Your task to perform on an android device: Play the last video I watched on Youtube Image 0: 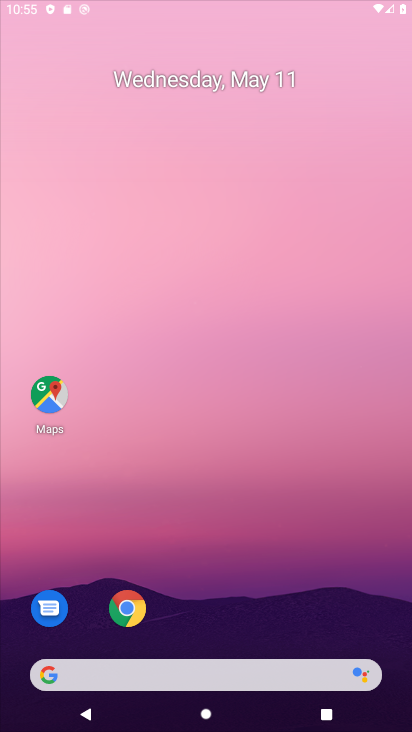
Step 0: drag from (338, 608) to (74, 136)
Your task to perform on an android device: Play the last video I watched on Youtube Image 1: 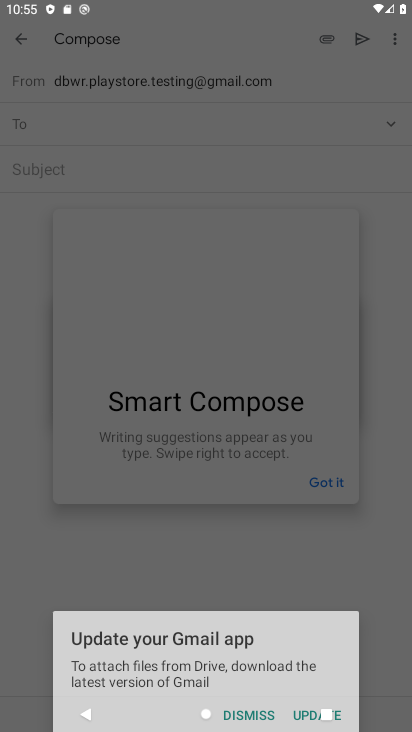
Step 1: click (333, 476)
Your task to perform on an android device: Play the last video I watched on Youtube Image 2: 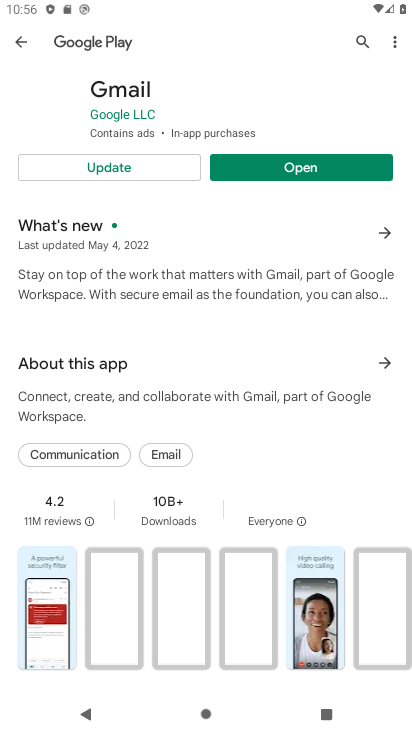
Step 2: press back button
Your task to perform on an android device: Play the last video I watched on Youtube Image 3: 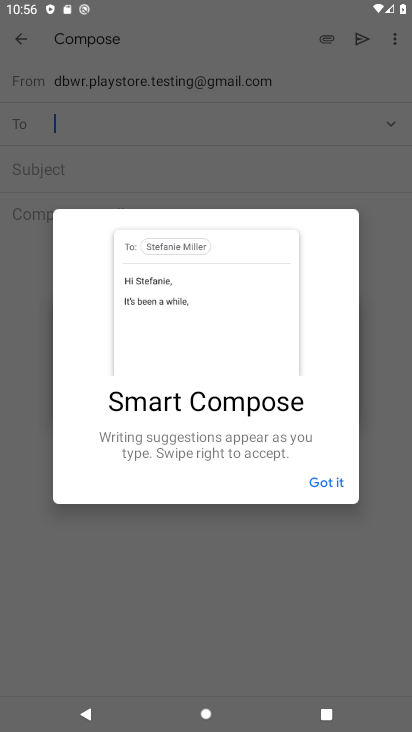
Step 3: click (318, 487)
Your task to perform on an android device: Play the last video I watched on Youtube Image 4: 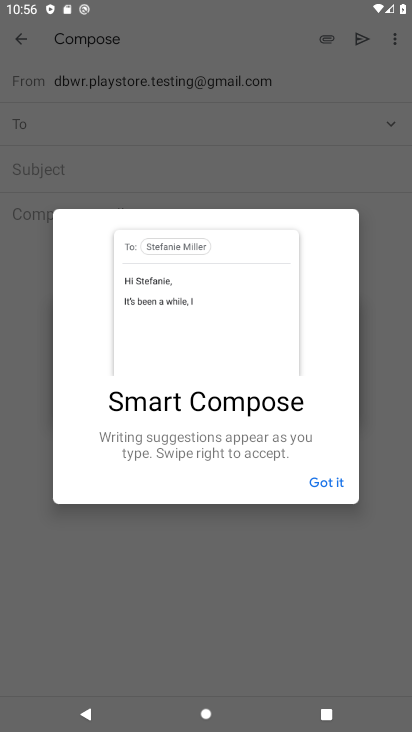
Step 4: click (319, 486)
Your task to perform on an android device: Play the last video I watched on Youtube Image 5: 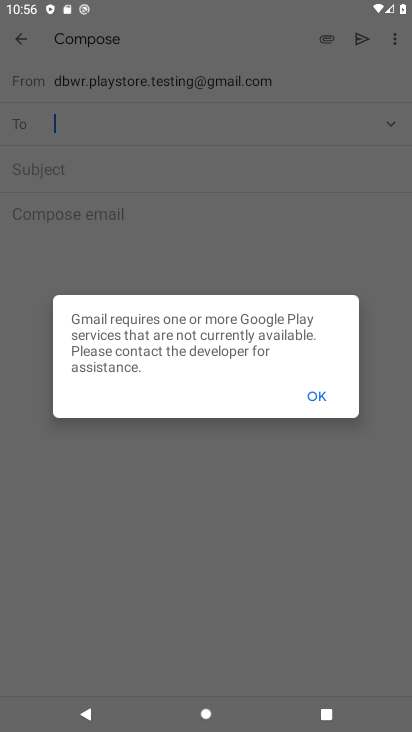
Step 5: click (319, 486)
Your task to perform on an android device: Play the last video I watched on Youtube Image 6: 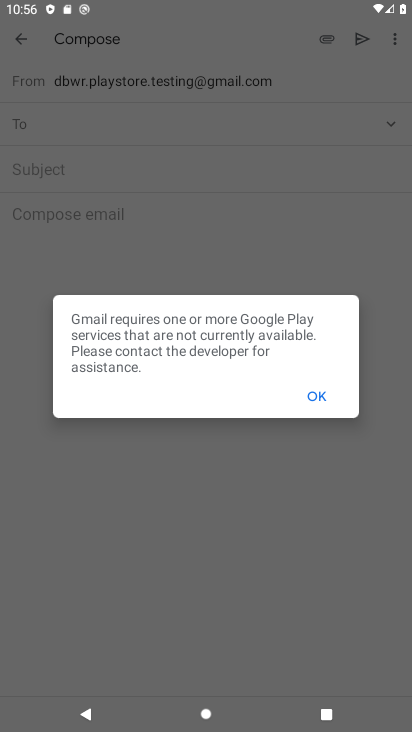
Step 6: click (320, 482)
Your task to perform on an android device: Play the last video I watched on Youtube Image 7: 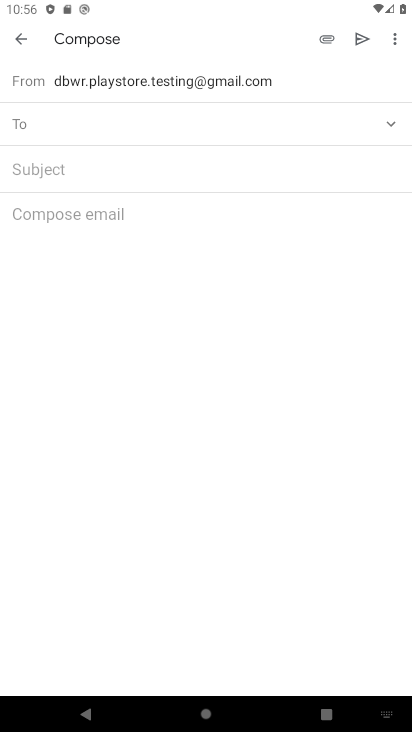
Step 7: press back button
Your task to perform on an android device: Play the last video I watched on Youtube Image 8: 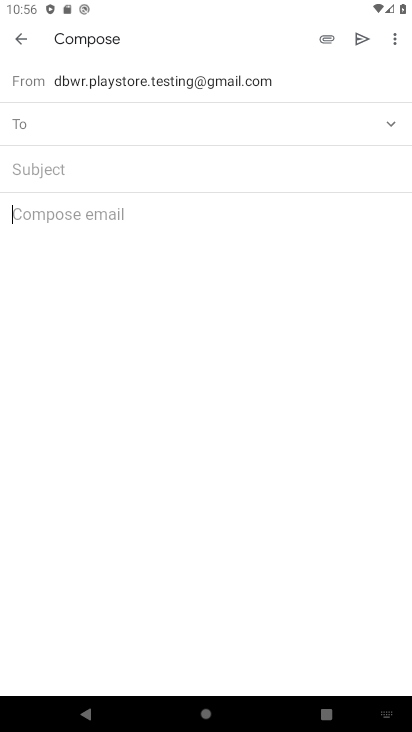
Step 8: press home button
Your task to perform on an android device: Play the last video I watched on Youtube Image 9: 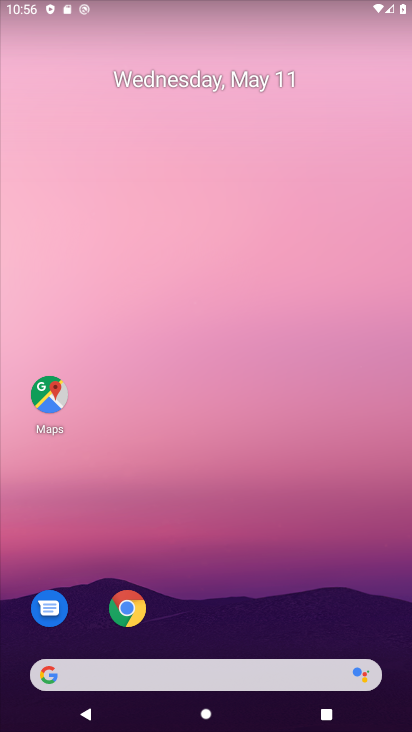
Step 9: drag from (329, 559) to (91, 132)
Your task to perform on an android device: Play the last video I watched on Youtube Image 10: 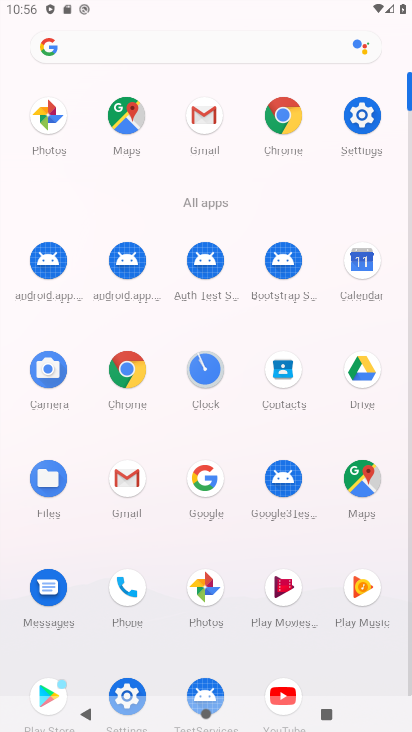
Step 10: click (287, 676)
Your task to perform on an android device: Play the last video I watched on Youtube Image 11: 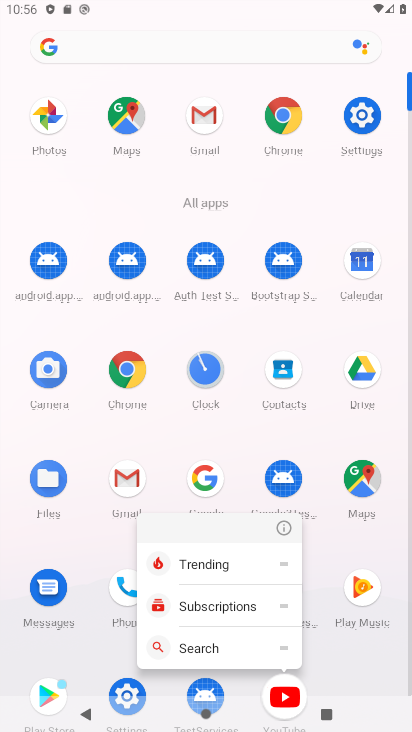
Step 11: click (287, 677)
Your task to perform on an android device: Play the last video I watched on Youtube Image 12: 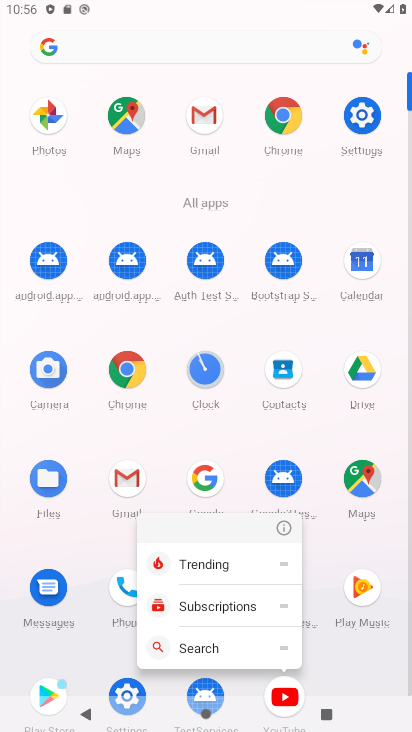
Step 12: click (287, 677)
Your task to perform on an android device: Play the last video I watched on Youtube Image 13: 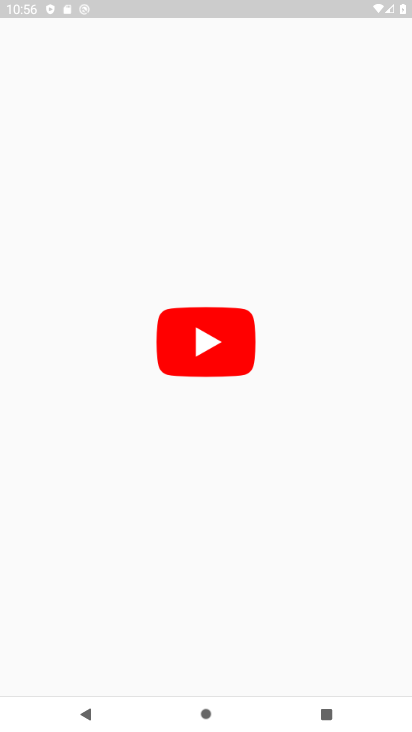
Step 13: click (198, 291)
Your task to perform on an android device: Play the last video I watched on Youtube Image 14: 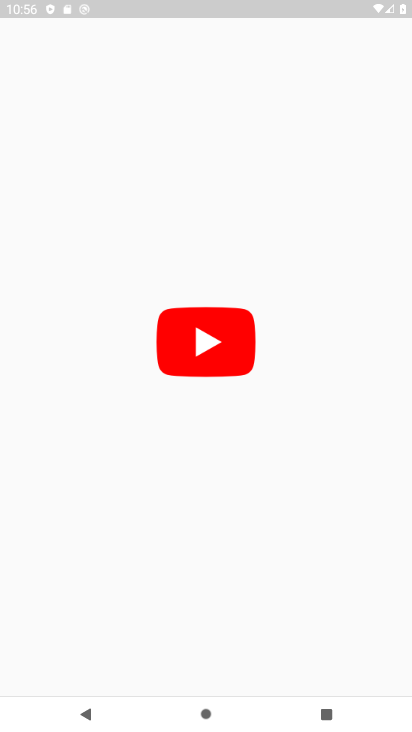
Step 14: click (214, 349)
Your task to perform on an android device: Play the last video I watched on Youtube Image 15: 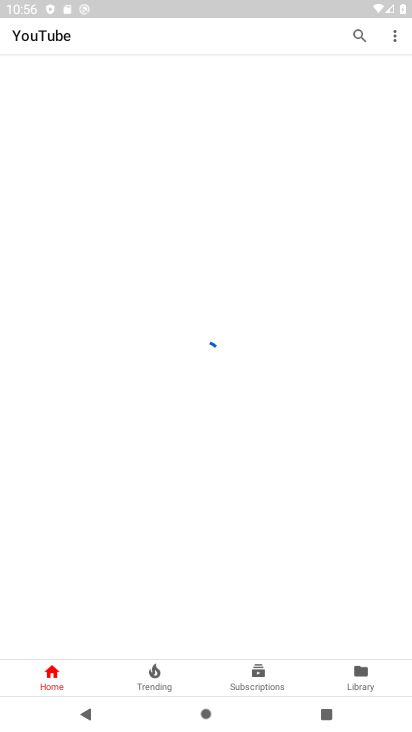
Step 15: click (213, 347)
Your task to perform on an android device: Play the last video I watched on Youtube Image 16: 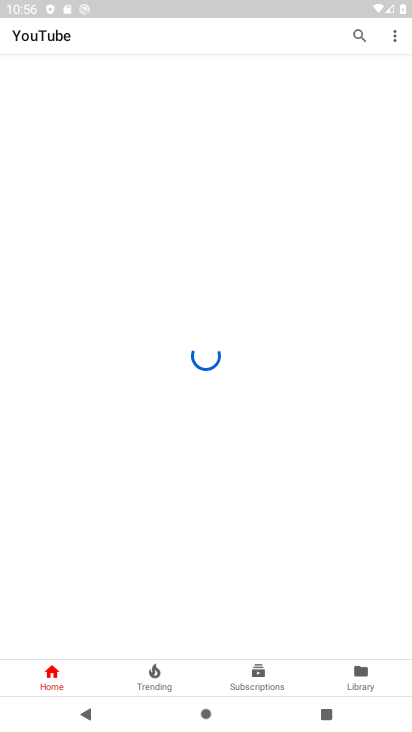
Step 16: click (213, 347)
Your task to perform on an android device: Play the last video I watched on Youtube Image 17: 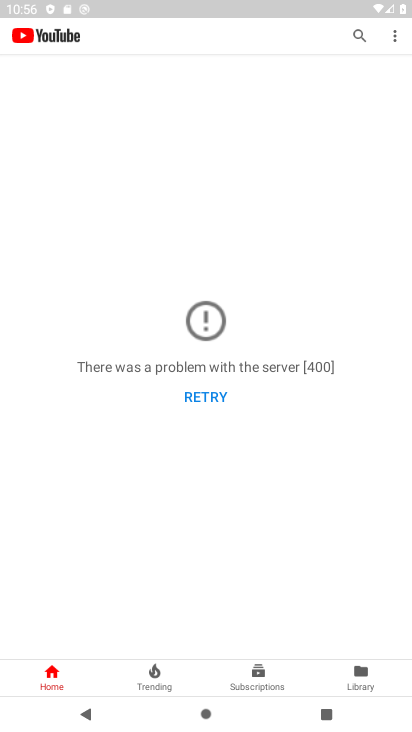
Step 17: click (217, 339)
Your task to perform on an android device: Play the last video I watched on Youtube Image 18: 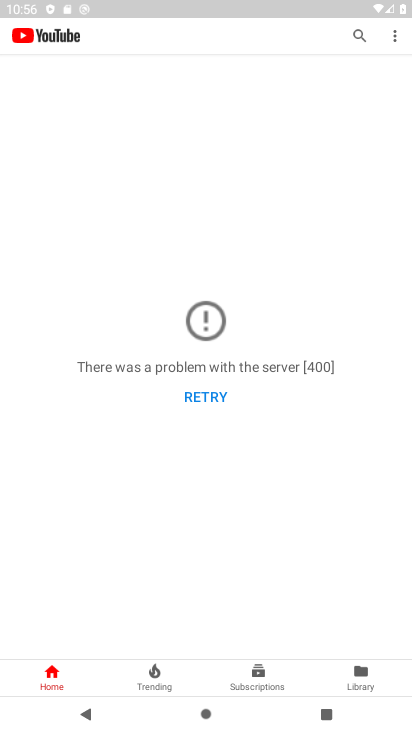
Step 18: click (217, 339)
Your task to perform on an android device: Play the last video I watched on Youtube Image 19: 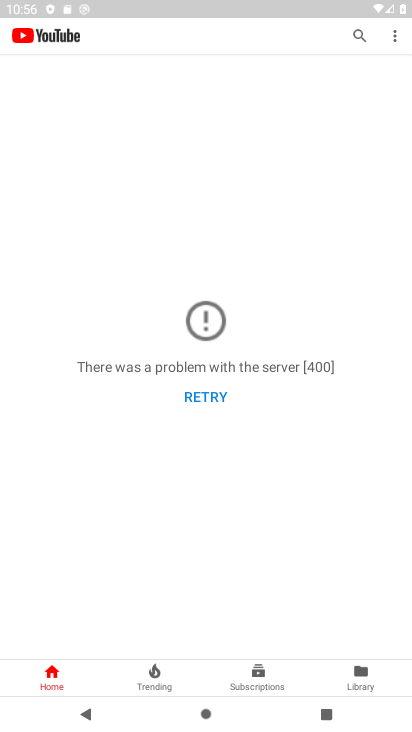
Step 19: click (217, 339)
Your task to perform on an android device: Play the last video I watched on Youtube Image 20: 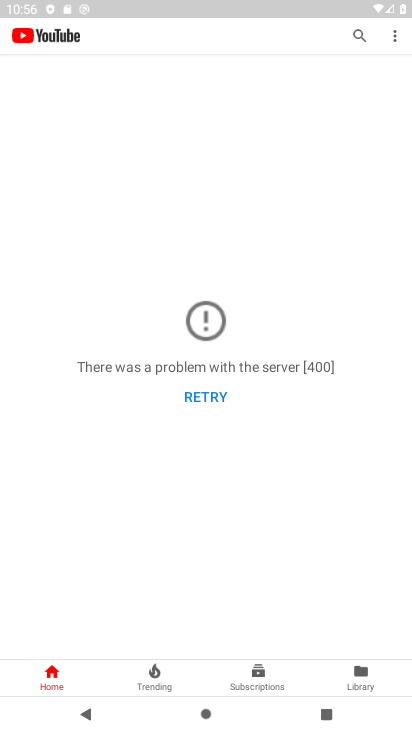
Step 20: task complete